Your task to perform on an android device: toggle improve location accuracy Image 0: 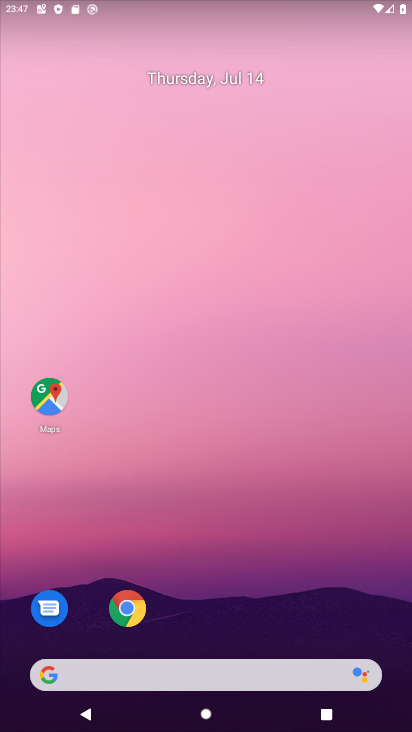
Step 0: drag from (57, 640) to (278, 78)
Your task to perform on an android device: toggle improve location accuracy Image 1: 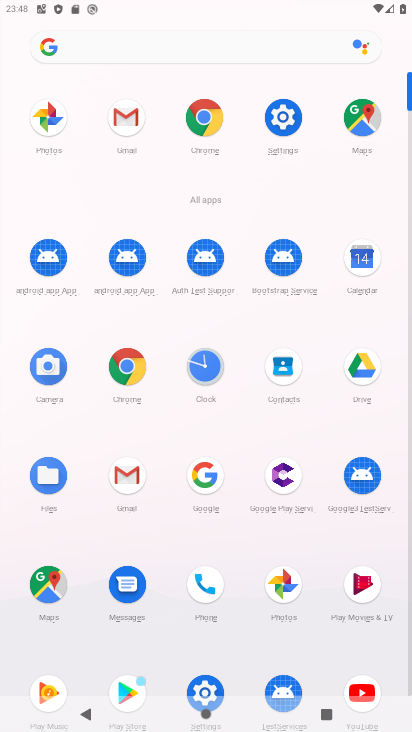
Step 1: click (199, 686)
Your task to perform on an android device: toggle improve location accuracy Image 2: 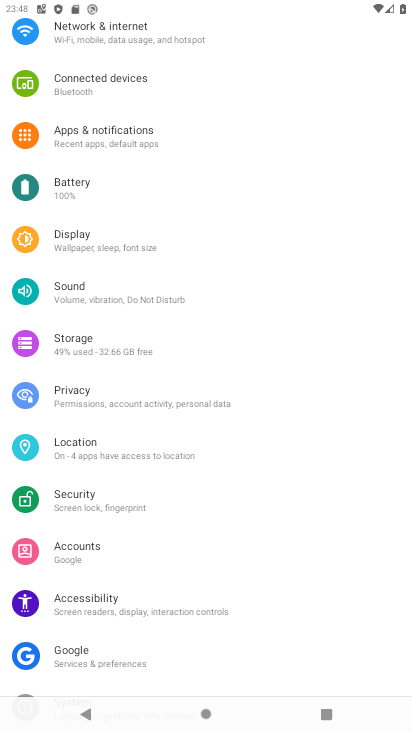
Step 2: click (86, 438)
Your task to perform on an android device: toggle improve location accuracy Image 3: 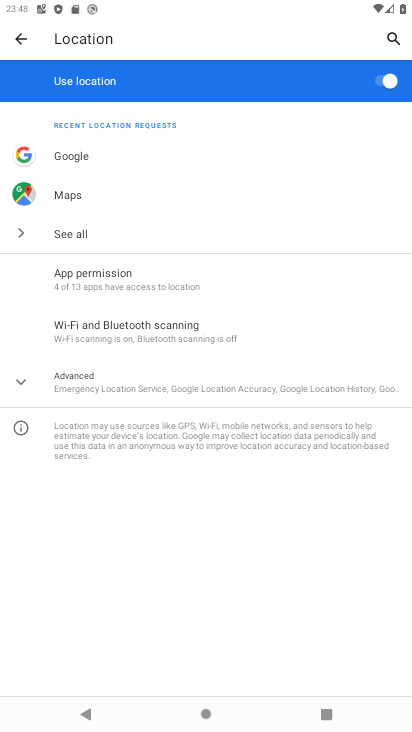
Step 3: click (80, 385)
Your task to perform on an android device: toggle improve location accuracy Image 4: 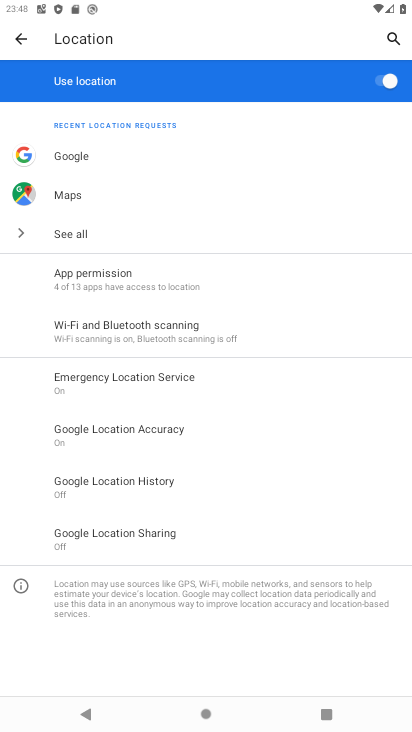
Step 4: task complete